Your task to perform on an android device: turn off location history Image 0: 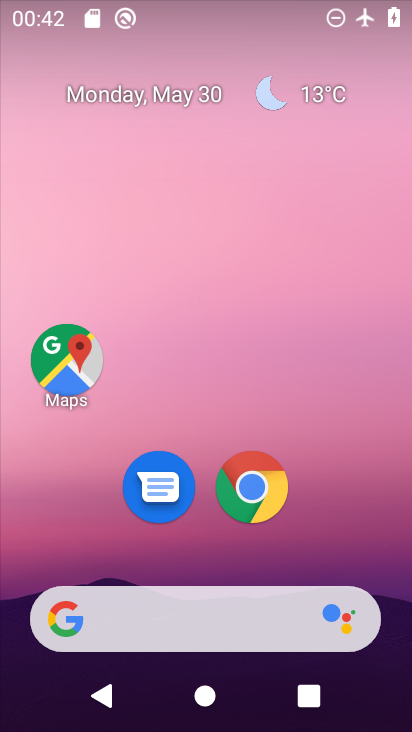
Step 0: drag from (389, 666) to (370, 120)
Your task to perform on an android device: turn off location history Image 1: 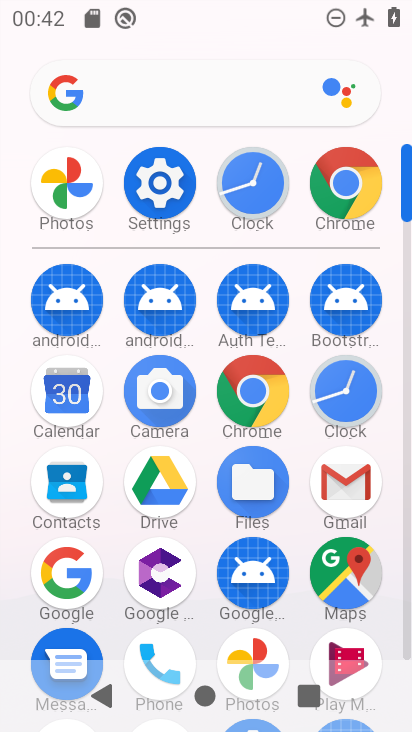
Step 1: click (160, 192)
Your task to perform on an android device: turn off location history Image 2: 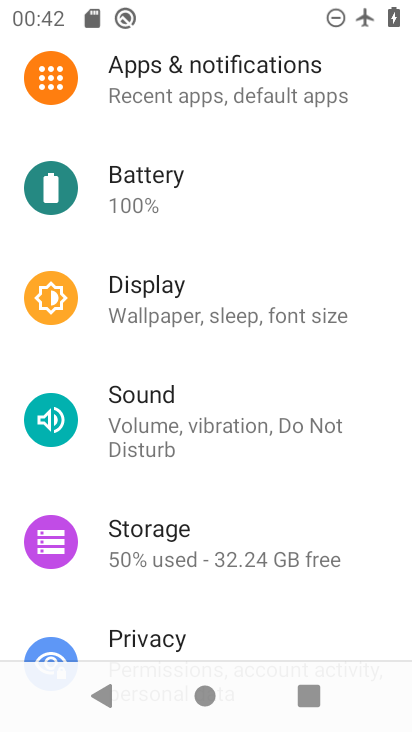
Step 2: drag from (264, 575) to (280, 252)
Your task to perform on an android device: turn off location history Image 3: 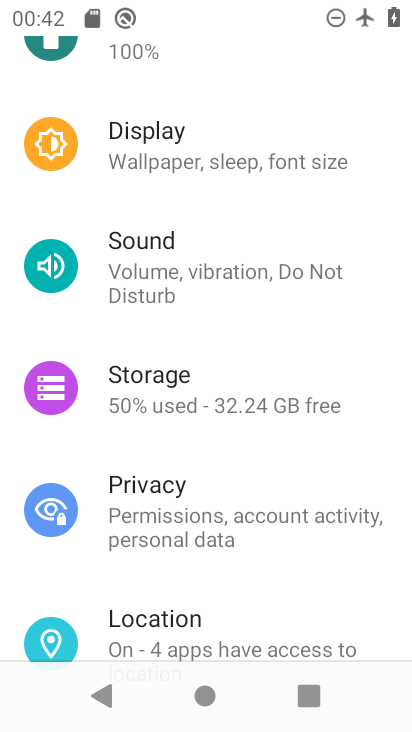
Step 3: press home button
Your task to perform on an android device: turn off location history Image 4: 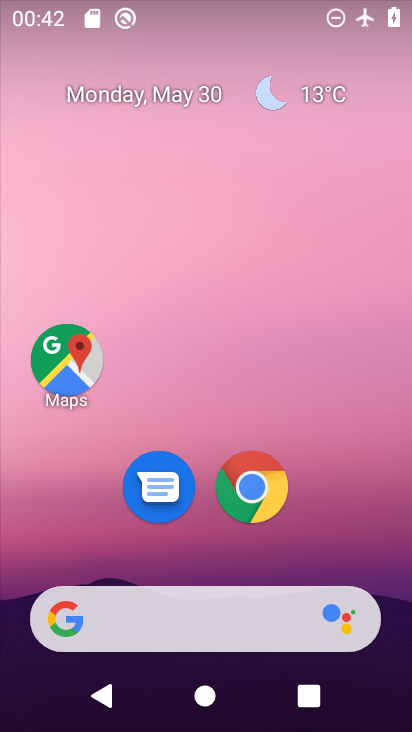
Step 4: drag from (397, 681) to (322, 55)
Your task to perform on an android device: turn off location history Image 5: 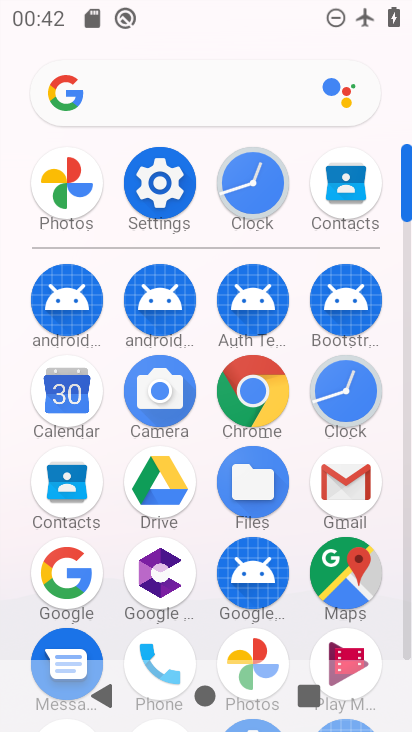
Step 5: click (153, 186)
Your task to perform on an android device: turn off location history Image 6: 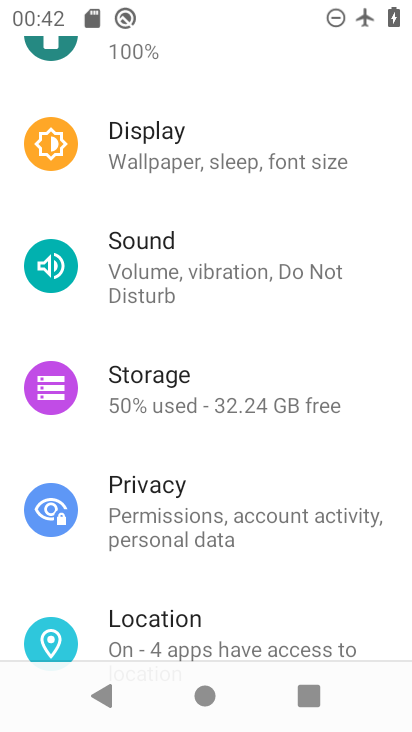
Step 6: click (112, 638)
Your task to perform on an android device: turn off location history Image 7: 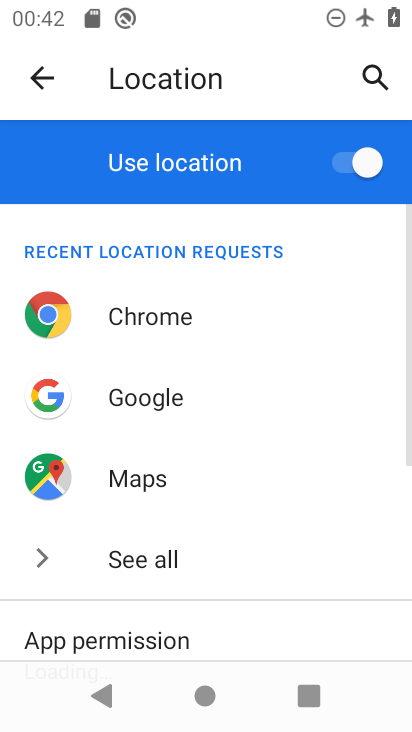
Step 7: drag from (265, 631) to (227, 154)
Your task to perform on an android device: turn off location history Image 8: 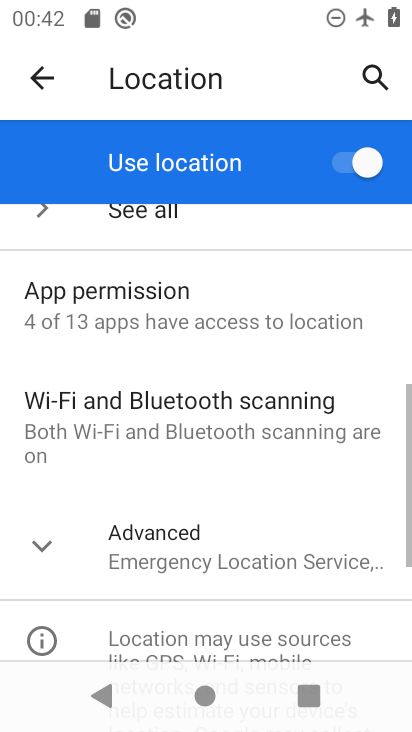
Step 8: click (41, 549)
Your task to perform on an android device: turn off location history Image 9: 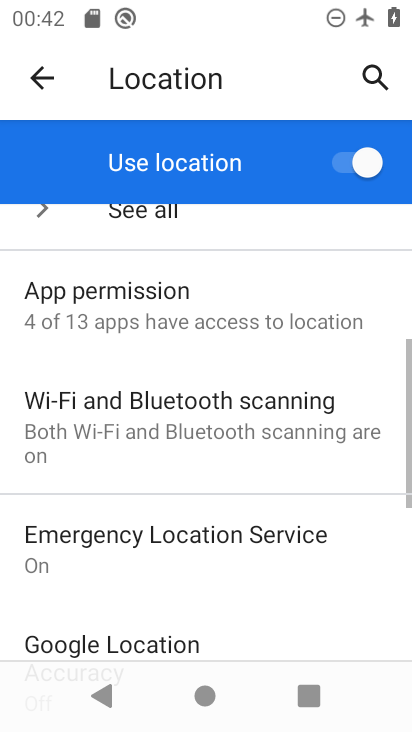
Step 9: drag from (329, 624) to (272, 222)
Your task to perform on an android device: turn off location history Image 10: 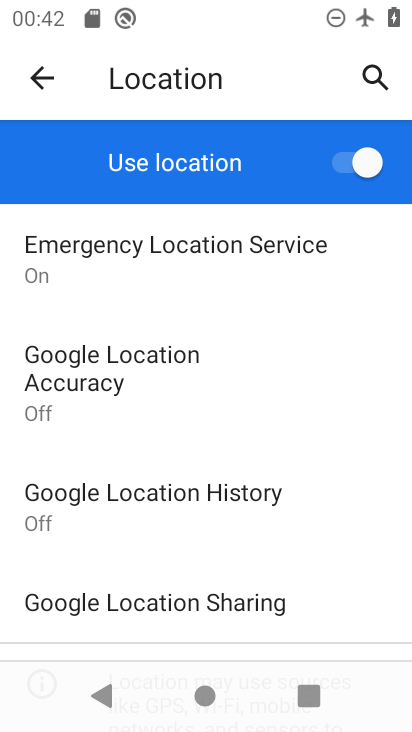
Step 10: click (185, 514)
Your task to perform on an android device: turn off location history Image 11: 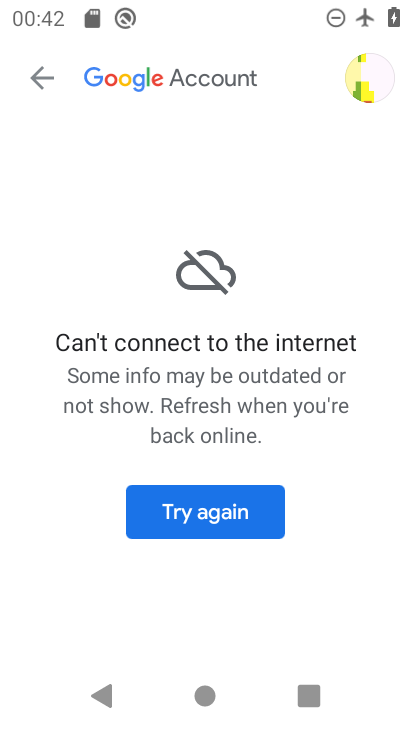
Step 11: task complete